Your task to perform on an android device: toggle javascript in the chrome app Image 0: 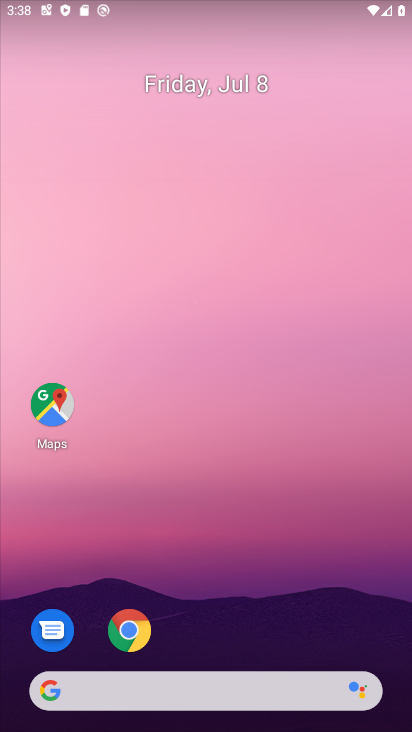
Step 0: click (135, 627)
Your task to perform on an android device: toggle javascript in the chrome app Image 1: 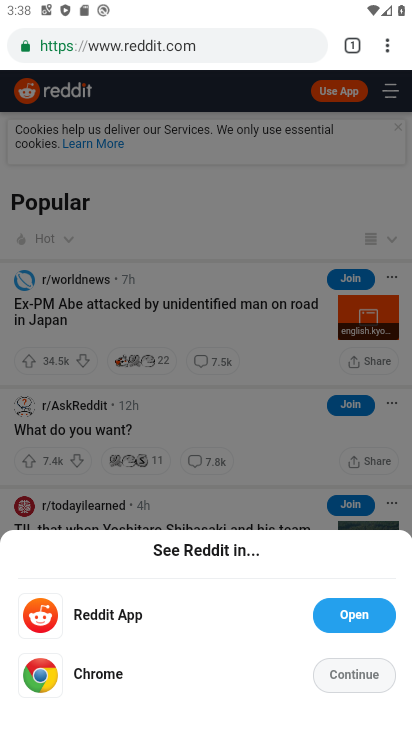
Step 1: click (392, 44)
Your task to perform on an android device: toggle javascript in the chrome app Image 2: 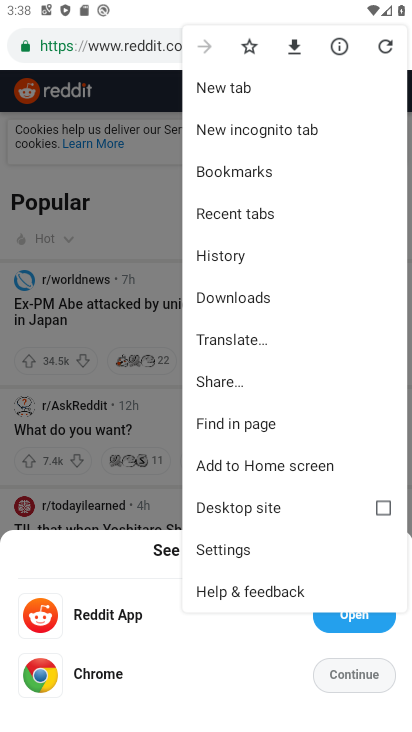
Step 2: click (246, 549)
Your task to perform on an android device: toggle javascript in the chrome app Image 3: 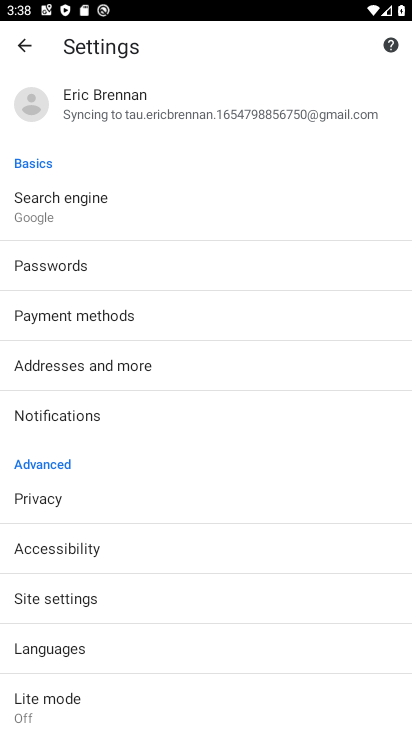
Step 3: click (68, 595)
Your task to perform on an android device: toggle javascript in the chrome app Image 4: 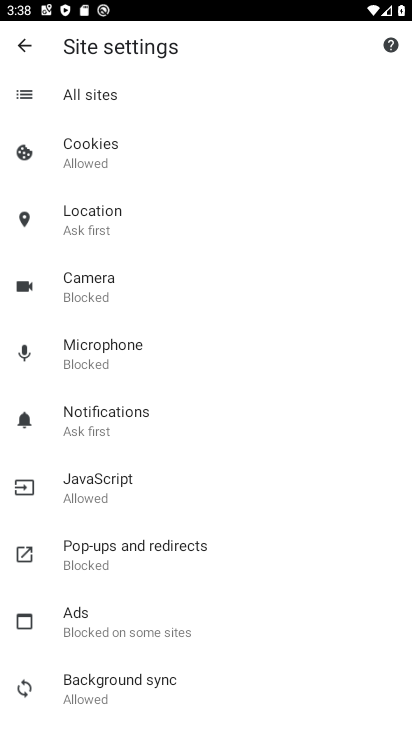
Step 4: click (125, 477)
Your task to perform on an android device: toggle javascript in the chrome app Image 5: 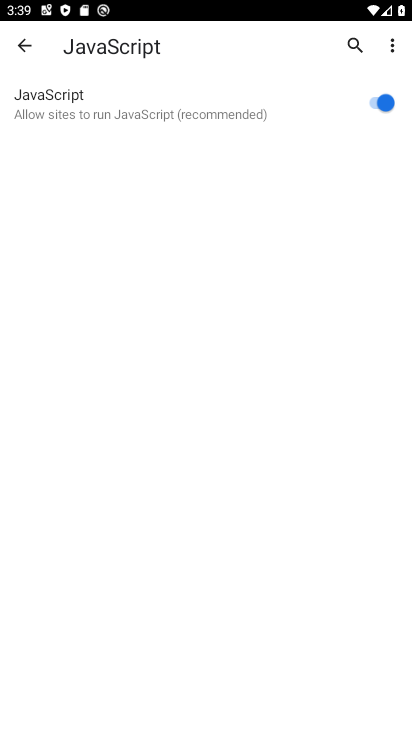
Step 5: click (377, 102)
Your task to perform on an android device: toggle javascript in the chrome app Image 6: 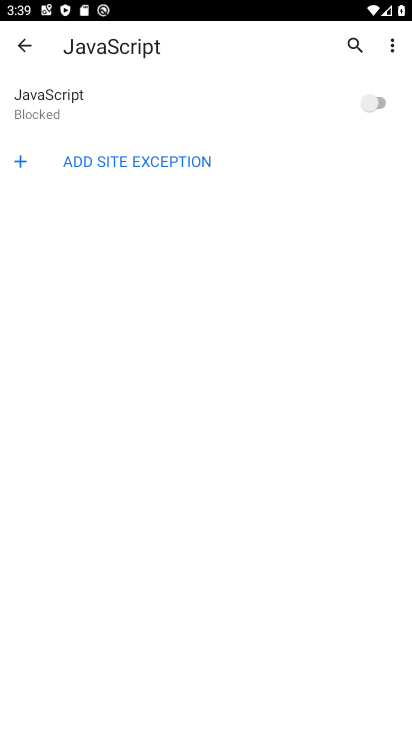
Step 6: task complete